Your task to perform on an android device: change keyboard looks Image 0: 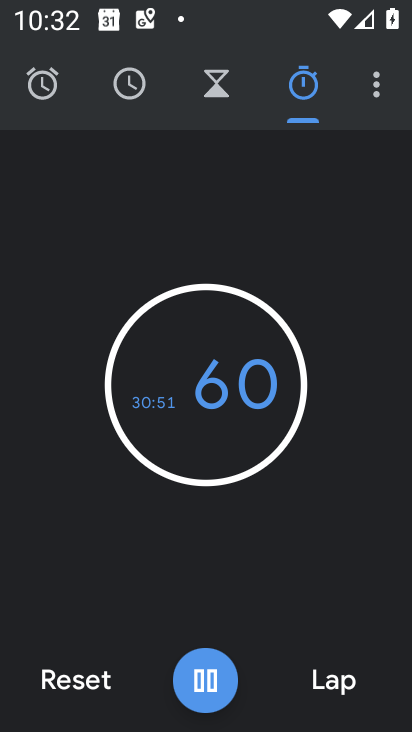
Step 0: press home button
Your task to perform on an android device: change keyboard looks Image 1: 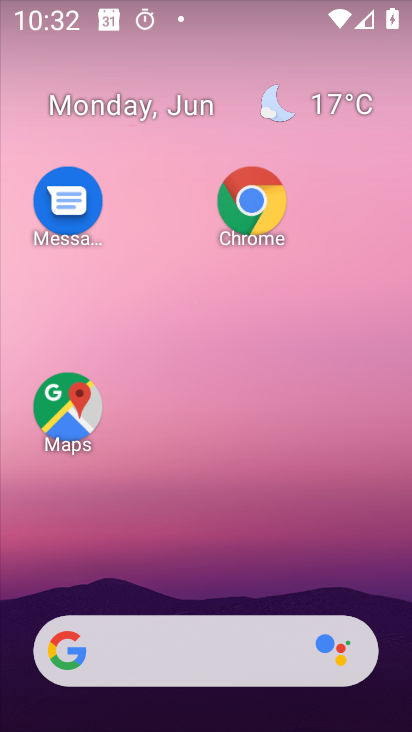
Step 1: drag from (195, 590) to (161, 76)
Your task to perform on an android device: change keyboard looks Image 2: 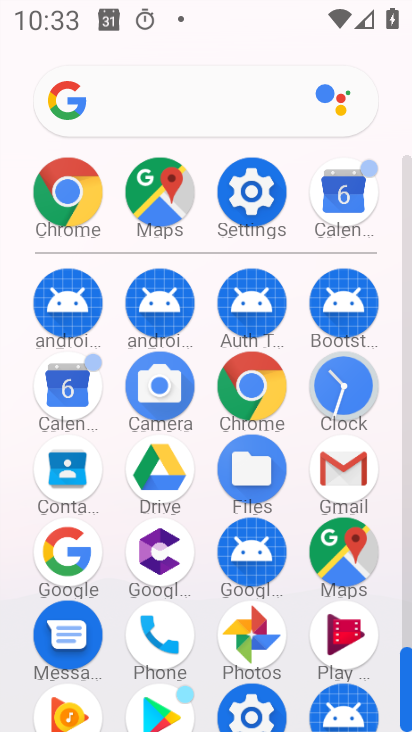
Step 2: click (268, 207)
Your task to perform on an android device: change keyboard looks Image 3: 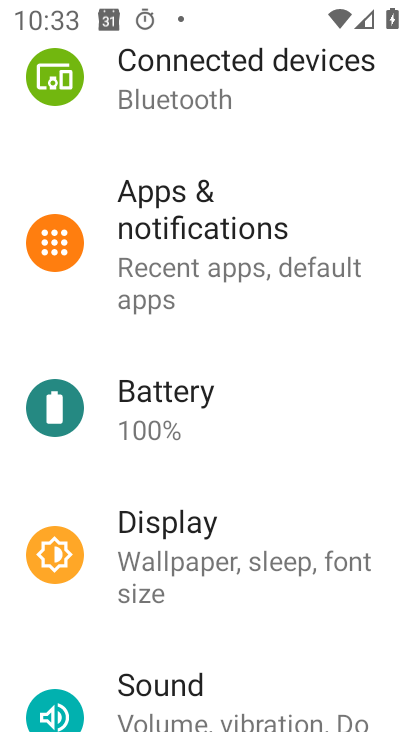
Step 3: drag from (250, 555) to (195, 100)
Your task to perform on an android device: change keyboard looks Image 4: 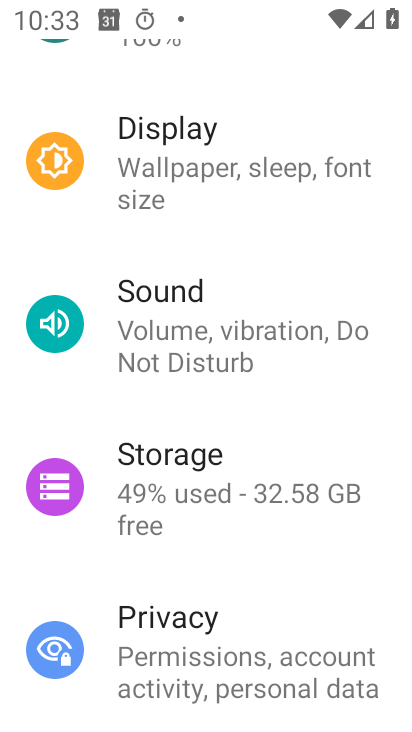
Step 4: drag from (234, 541) to (174, 21)
Your task to perform on an android device: change keyboard looks Image 5: 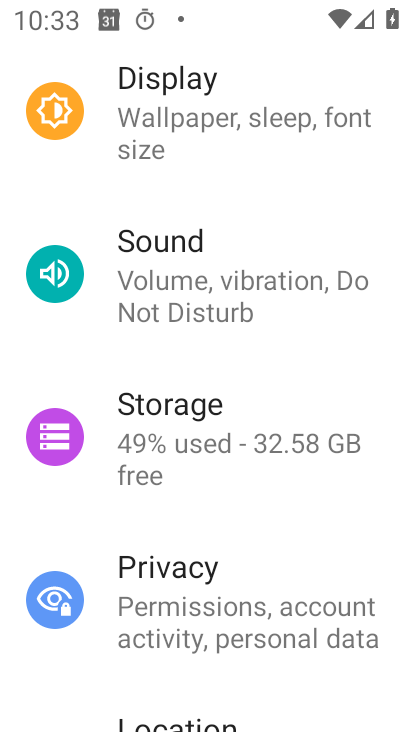
Step 5: drag from (201, 551) to (224, 13)
Your task to perform on an android device: change keyboard looks Image 6: 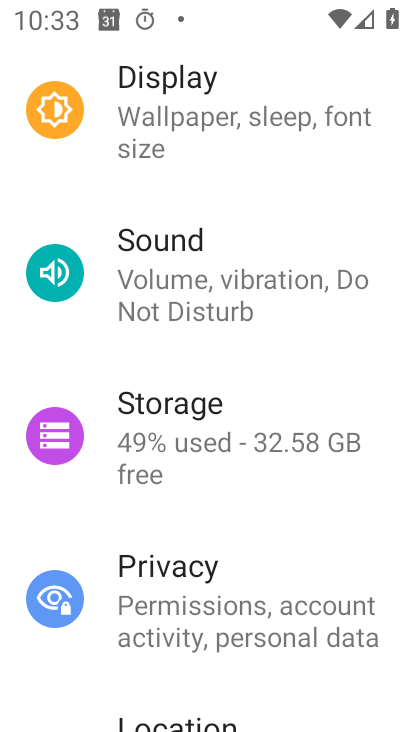
Step 6: drag from (138, 561) to (151, 8)
Your task to perform on an android device: change keyboard looks Image 7: 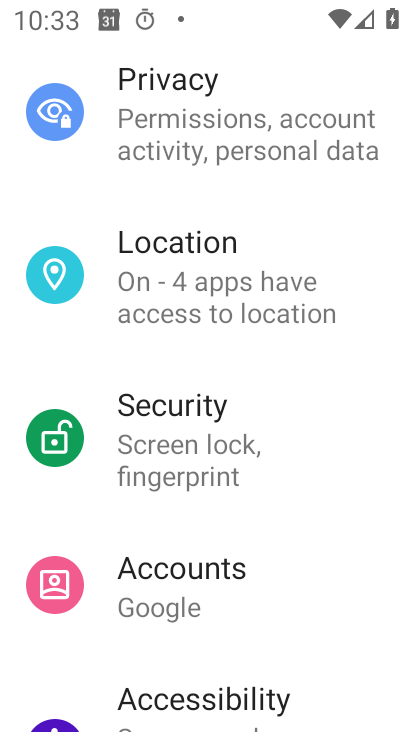
Step 7: drag from (179, 497) to (84, 1)
Your task to perform on an android device: change keyboard looks Image 8: 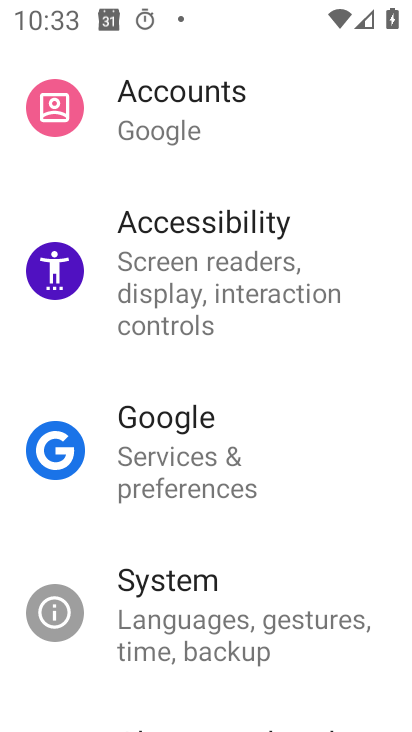
Step 8: click (113, 620)
Your task to perform on an android device: change keyboard looks Image 9: 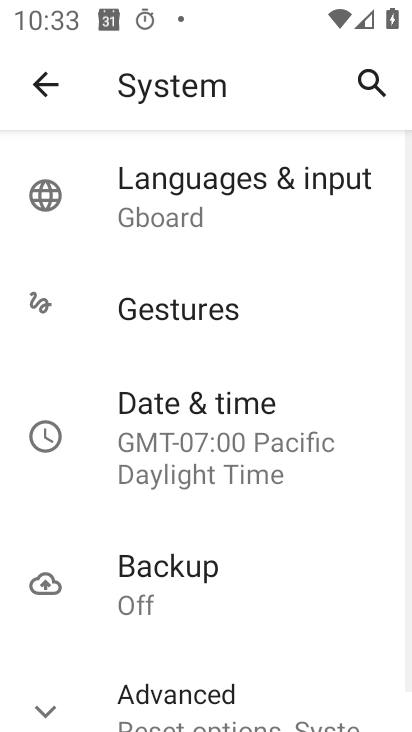
Step 9: click (205, 167)
Your task to perform on an android device: change keyboard looks Image 10: 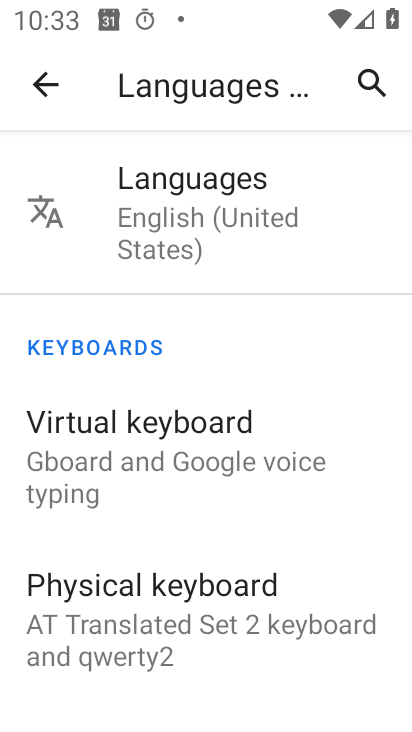
Step 10: click (86, 415)
Your task to perform on an android device: change keyboard looks Image 11: 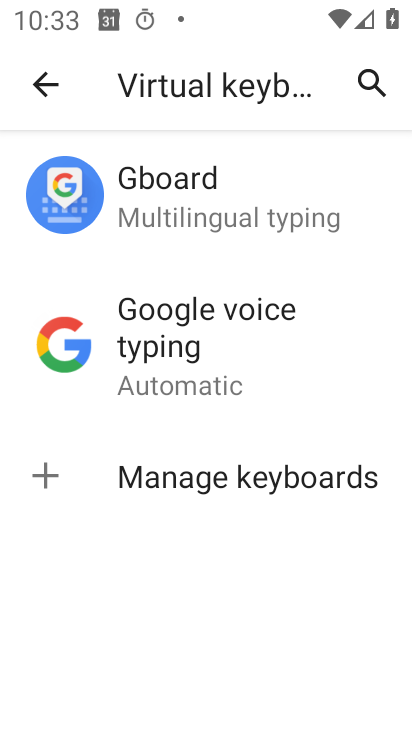
Step 11: click (178, 232)
Your task to perform on an android device: change keyboard looks Image 12: 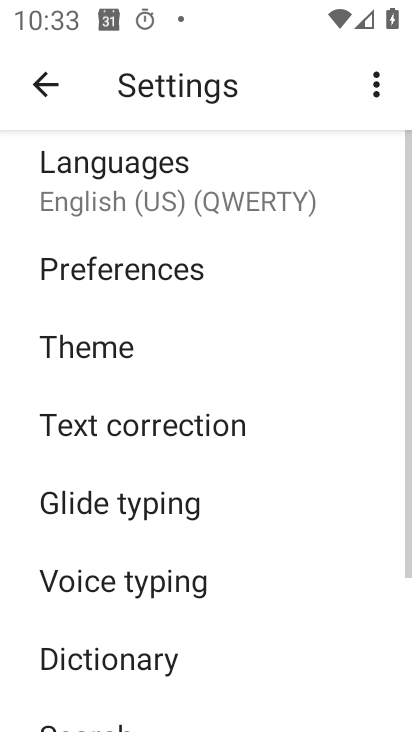
Step 12: click (59, 341)
Your task to perform on an android device: change keyboard looks Image 13: 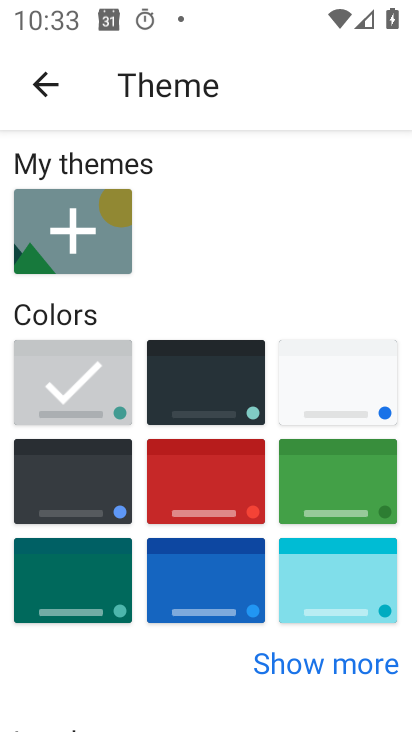
Step 13: click (191, 396)
Your task to perform on an android device: change keyboard looks Image 14: 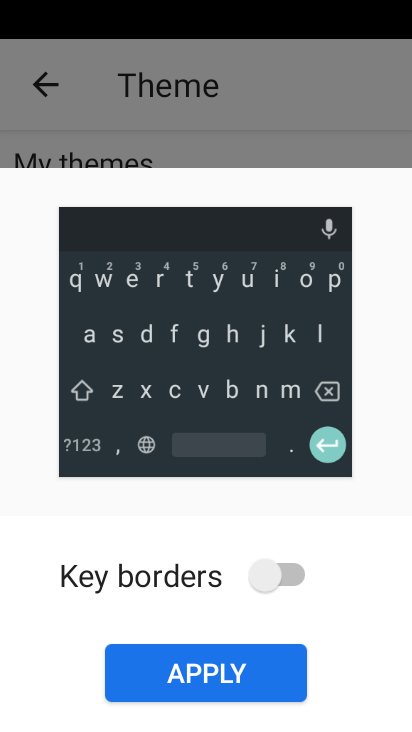
Step 14: click (169, 656)
Your task to perform on an android device: change keyboard looks Image 15: 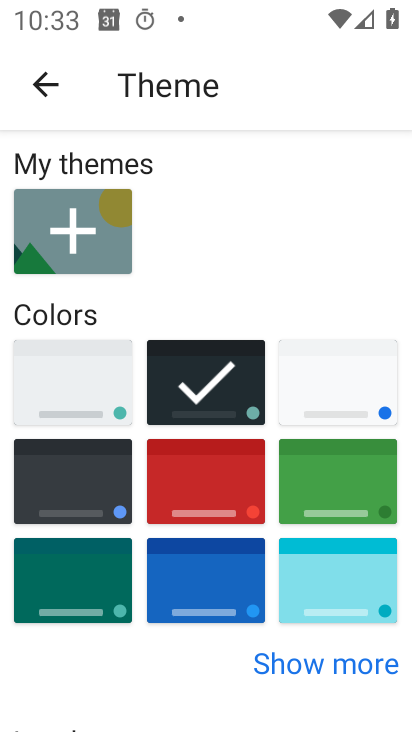
Step 15: task complete